Your task to perform on an android device: Show me recent news Image 0: 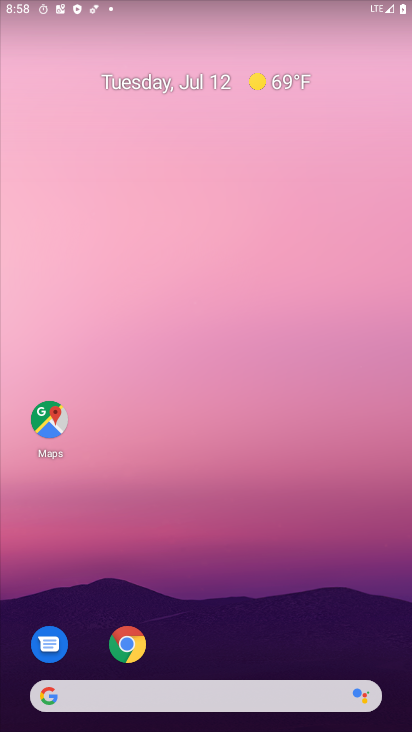
Step 0: press home button
Your task to perform on an android device: Show me recent news Image 1: 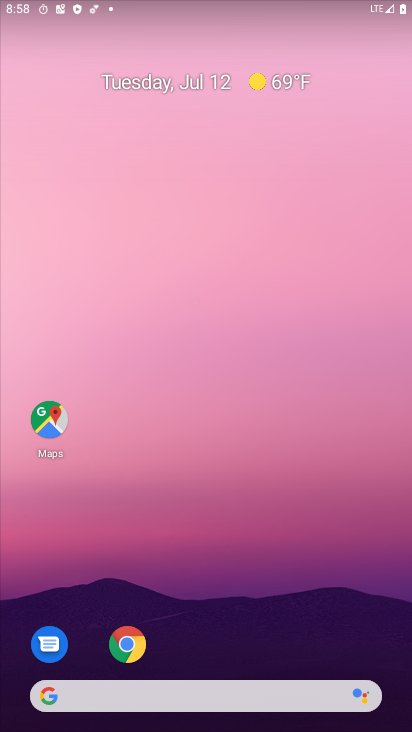
Step 1: task complete